Your task to perform on an android device: turn off priority inbox in the gmail app Image 0: 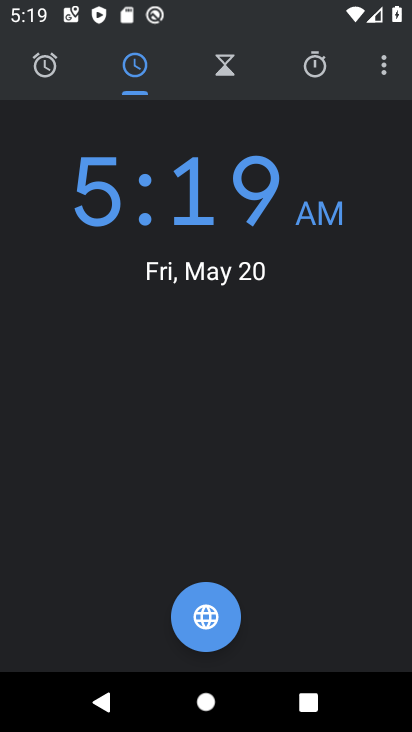
Step 0: press home button
Your task to perform on an android device: turn off priority inbox in the gmail app Image 1: 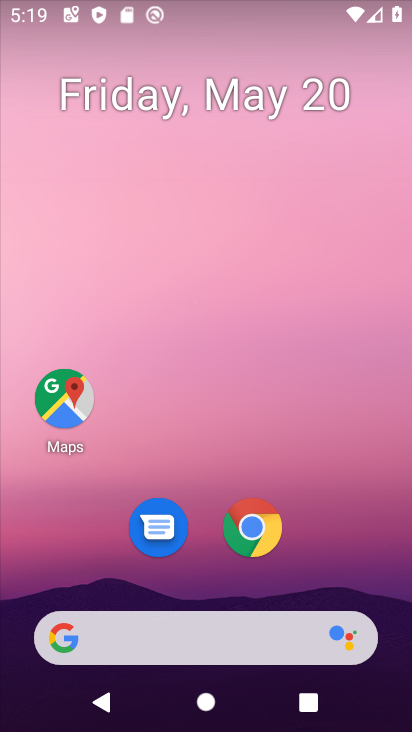
Step 1: drag from (334, 628) to (379, 3)
Your task to perform on an android device: turn off priority inbox in the gmail app Image 2: 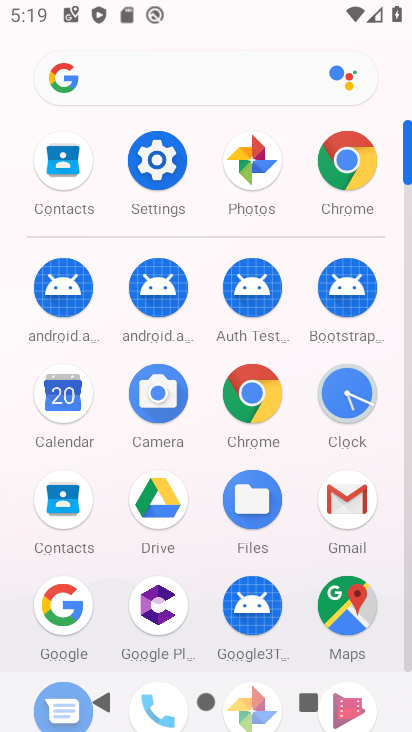
Step 2: click (360, 492)
Your task to perform on an android device: turn off priority inbox in the gmail app Image 3: 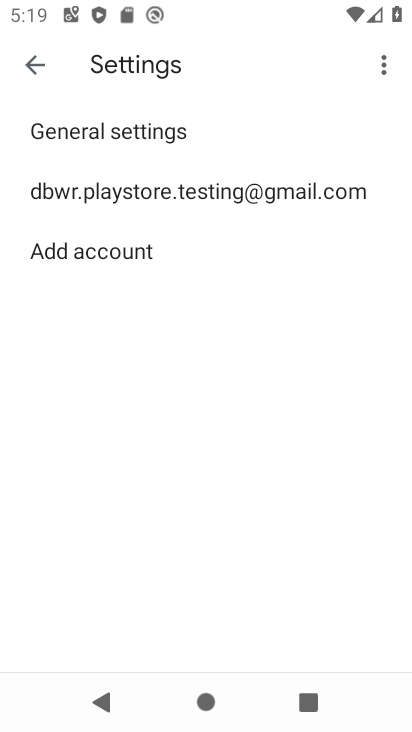
Step 3: press back button
Your task to perform on an android device: turn off priority inbox in the gmail app Image 4: 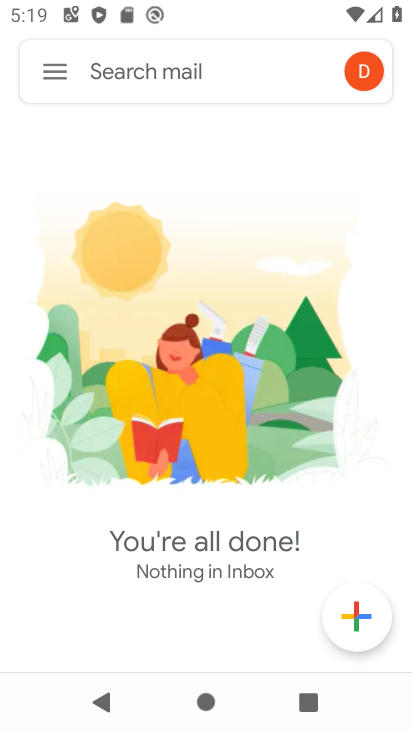
Step 4: click (55, 62)
Your task to perform on an android device: turn off priority inbox in the gmail app Image 5: 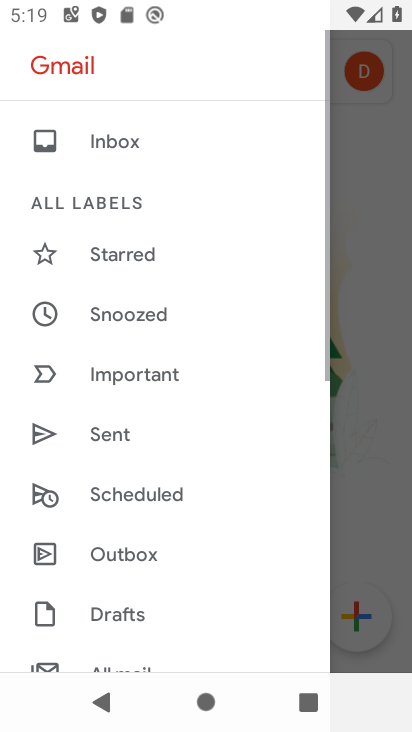
Step 5: drag from (208, 610) to (239, 42)
Your task to perform on an android device: turn off priority inbox in the gmail app Image 6: 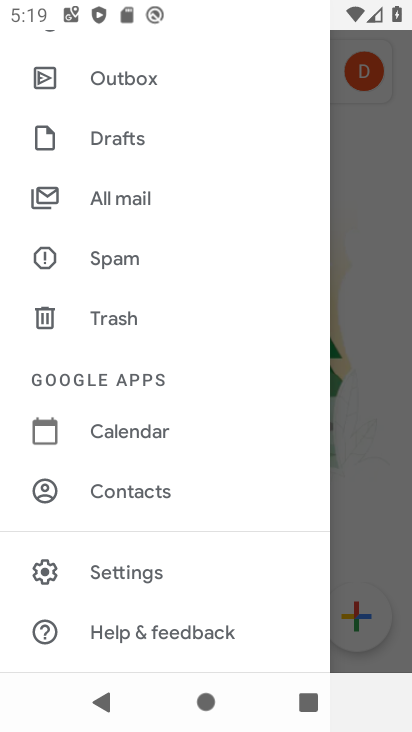
Step 6: click (143, 572)
Your task to perform on an android device: turn off priority inbox in the gmail app Image 7: 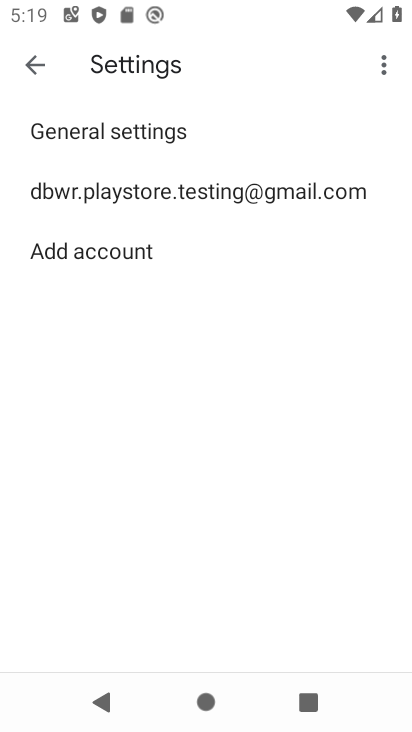
Step 7: click (240, 194)
Your task to perform on an android device: turn off priority inbox in the gmail app Image 8: 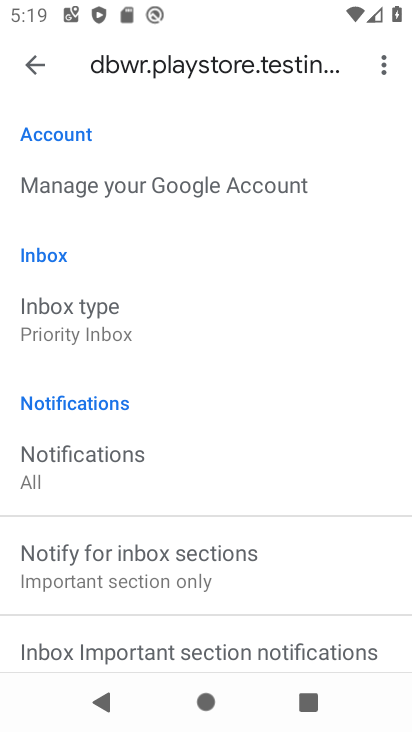
Step 8: click (112, 328)
Your task to perform on an android device: turn off priority inbox in the gmail app Image 9: 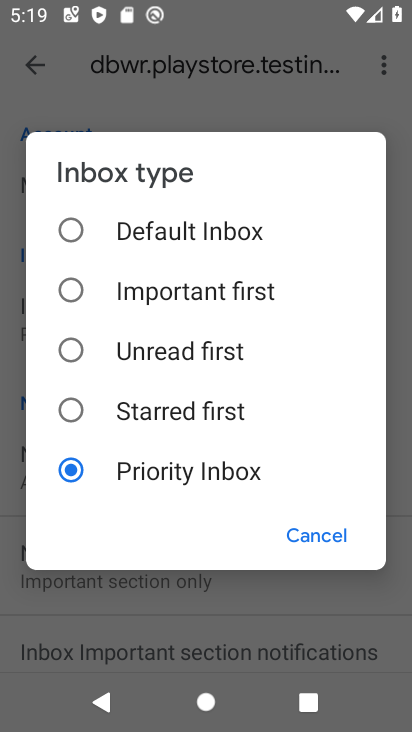
Step 9: click (126, 235)
Your task to perform on an android device: turn off priority inbox in the gmail app Image 10: 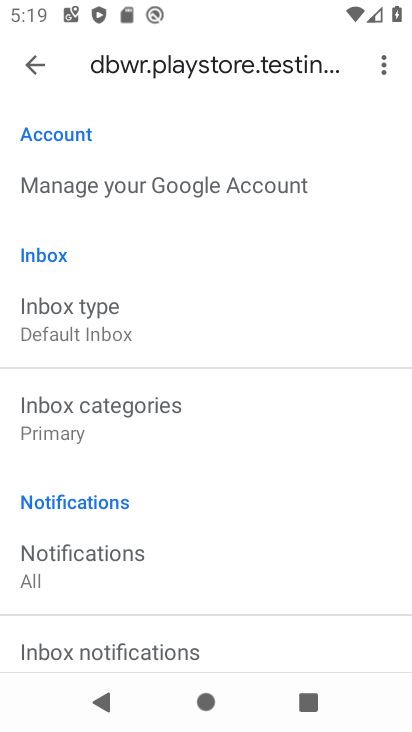
Step 10: task complete